Your task to perform on an android device: Find coffee shops on Maps Image 0: 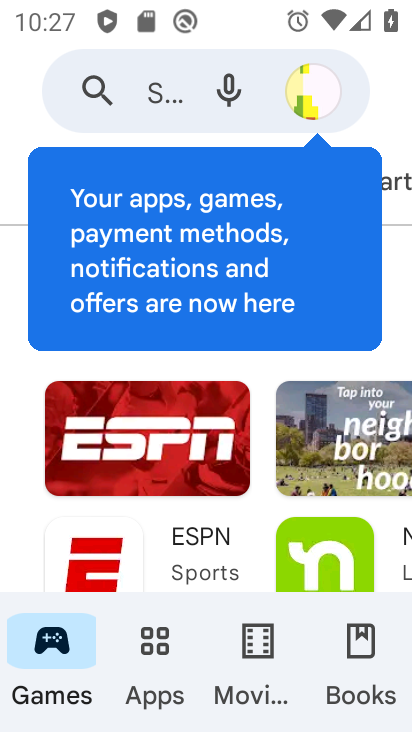
Step 0: drag from (268, 531) to (241, 300)
Your task to perform on an android device: Find coffee shops on Maps Image 1: 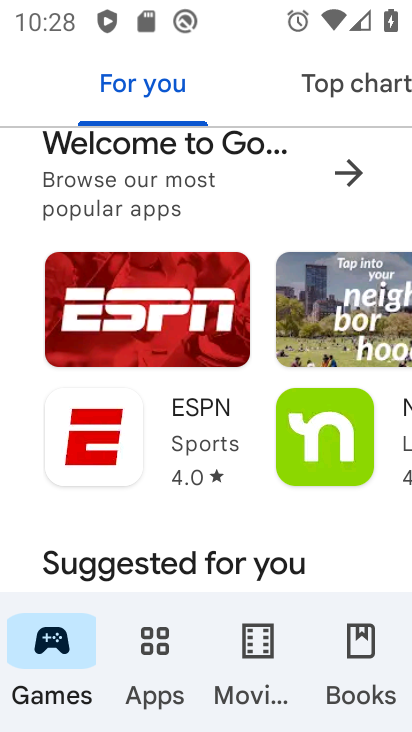
Step 1: press home button
Your task to perform on an android device: Find coffee shops on Maps Image 2: 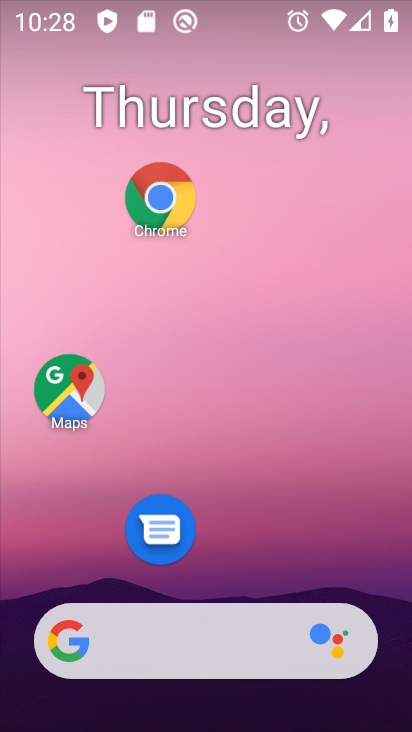
Step 2: click (57, 396)
Your task to perform on an android device: Find coffee shops on Maps Image 3: 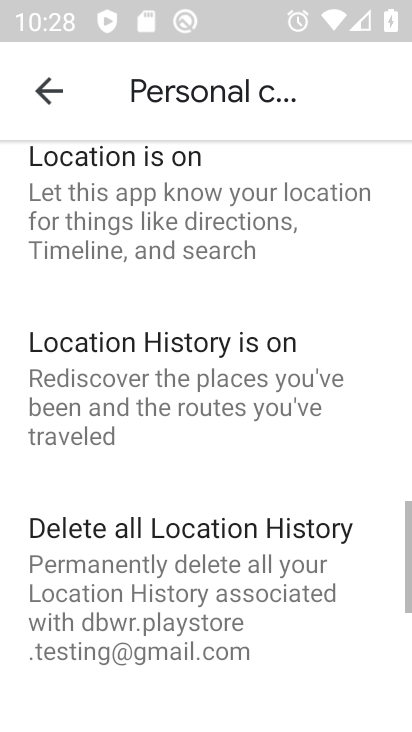
Step 3: click (63, 90)
Your task to perform on an android device: Find coffee shops on Maps Image 4: 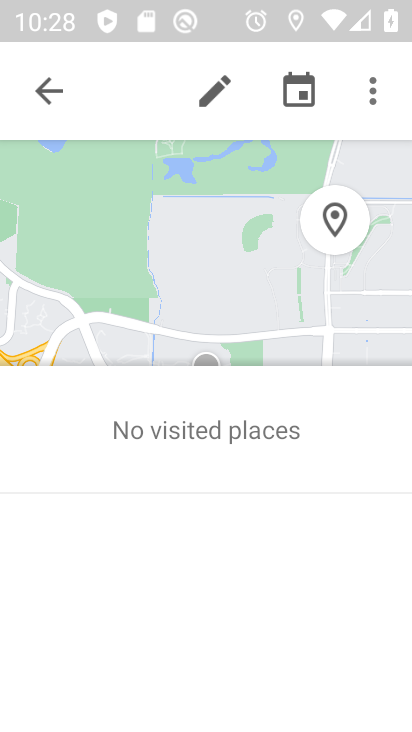
Step 4: click (45, 88)
Your task to perform on an android device: Find coffee shops on Maps Image 5: 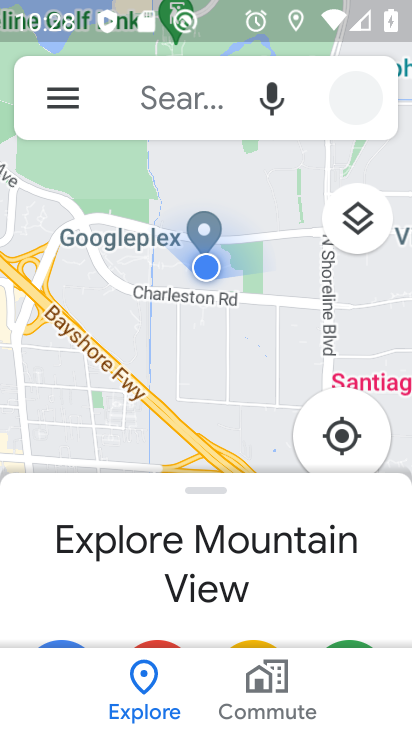
Step 5: click (134, 89)
Your task to perform on an android device: Find coffee shops on Maps Image 6: 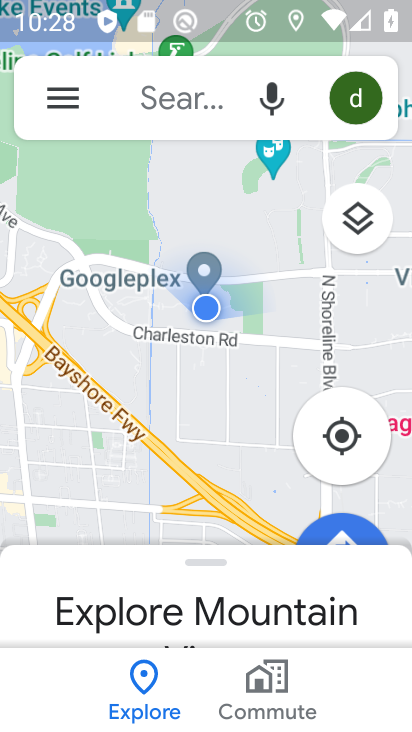
Step 6: click (159, 99)
Your task to perform on an android device: Find coffee shops on Maps Image 7: 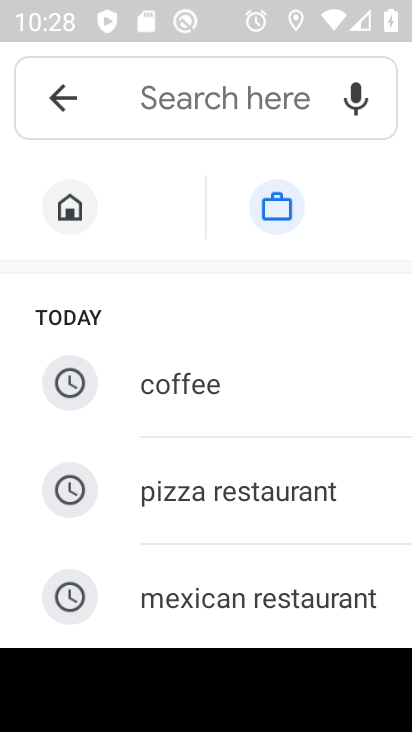
Step 7: type "coffee shop"
Your task to perform on an android device: Find coffee shops on Maps Image 8: 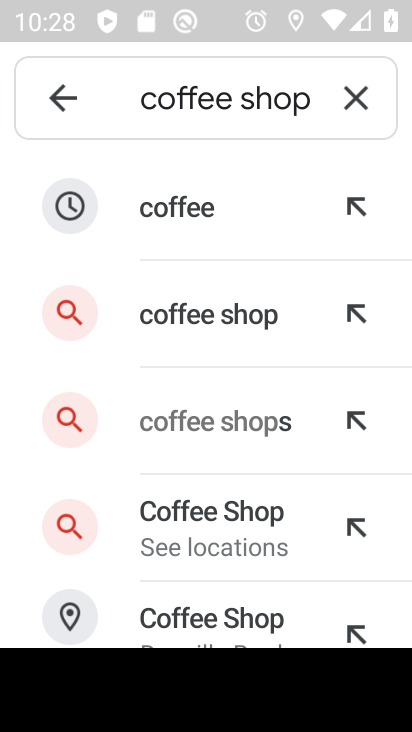
Step 8: click (213, 316)
Your task to perform on an android device: Find coffee shops on Maps Image 9: 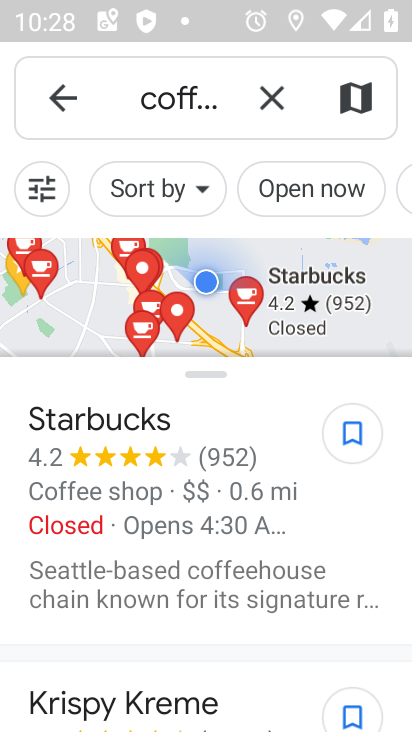
Step 9: task complete